Your task to perform on an android device: open sync settings in chrome Image 0: 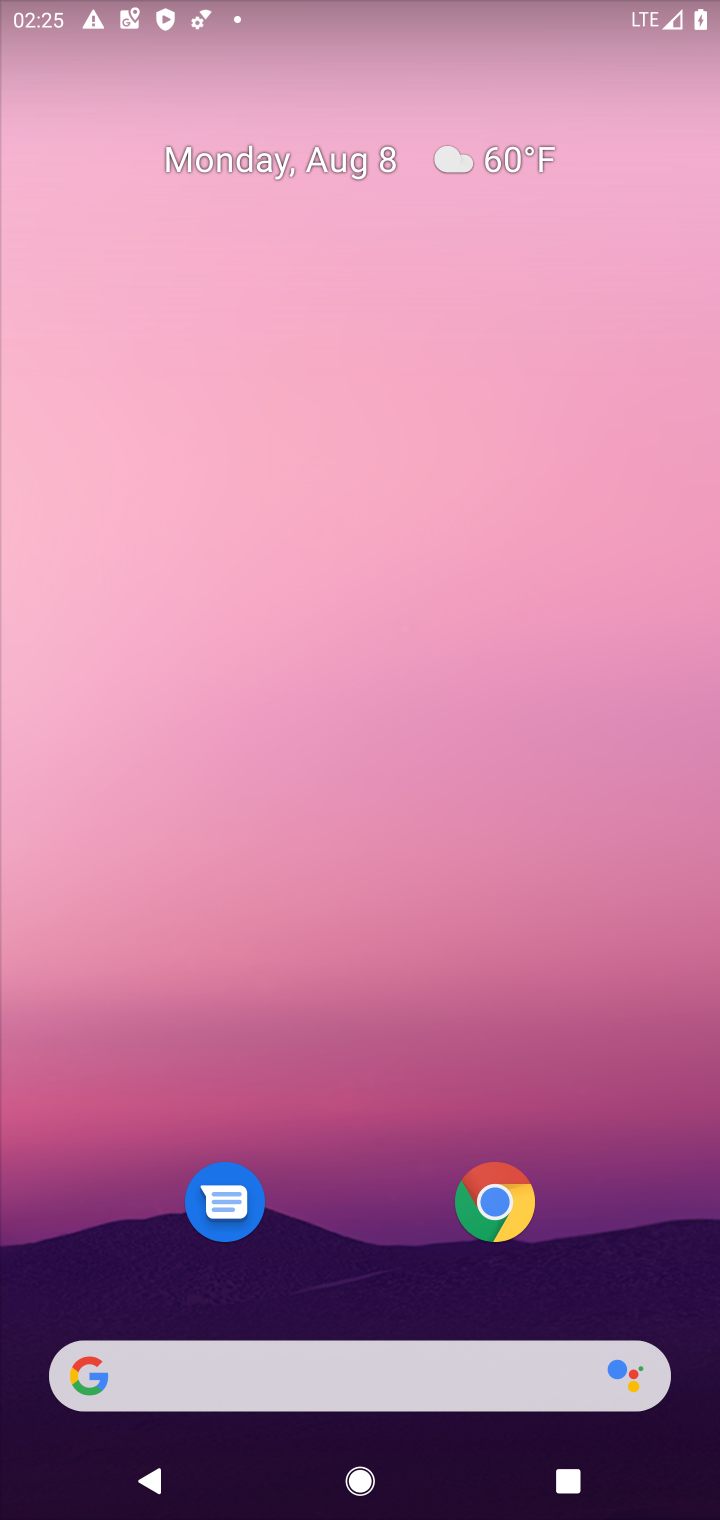
Step 0: click (504, 1211)
Your task to perform on an android device: open sync settings in chrome Image 1: 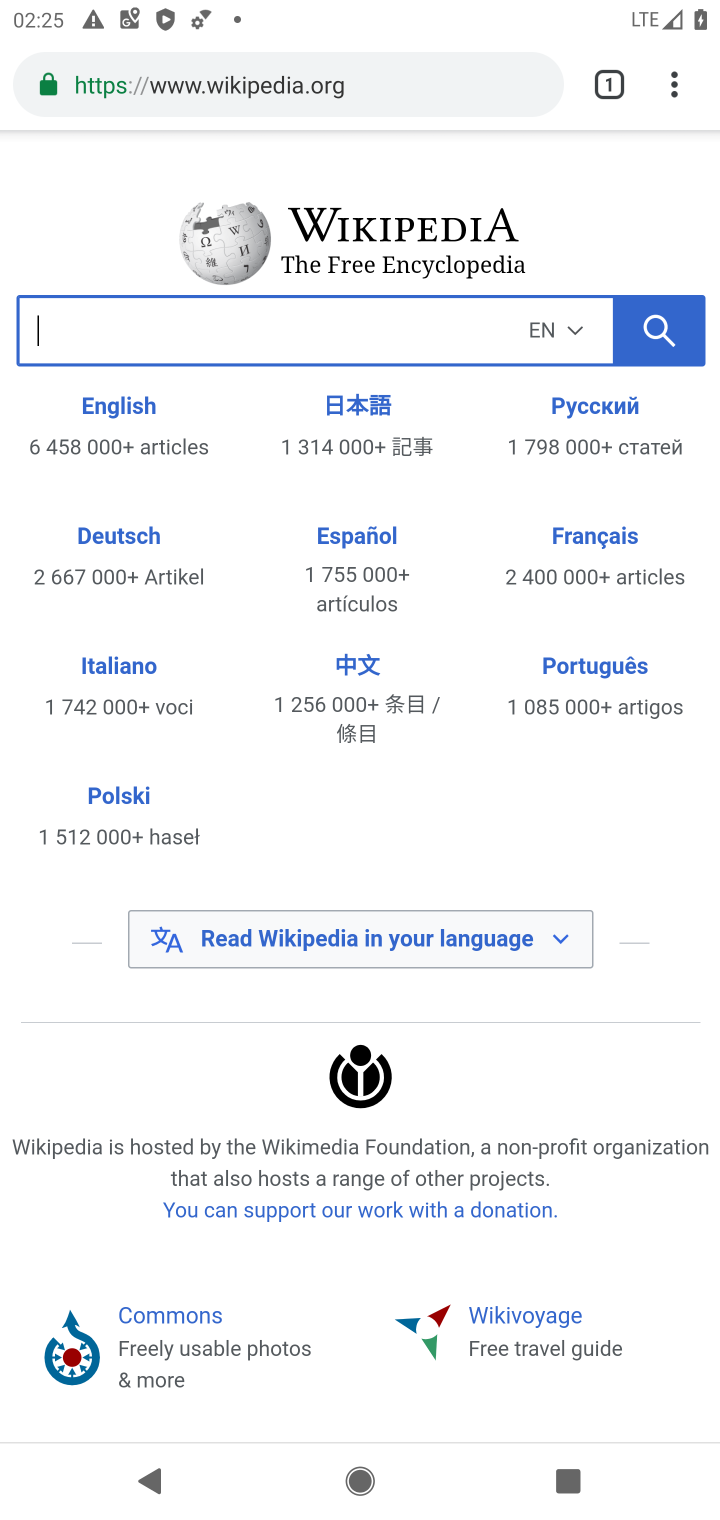
Step 1: click (673, 97)
Your task to perform on an android device: open sync settings in chrome Image 2: 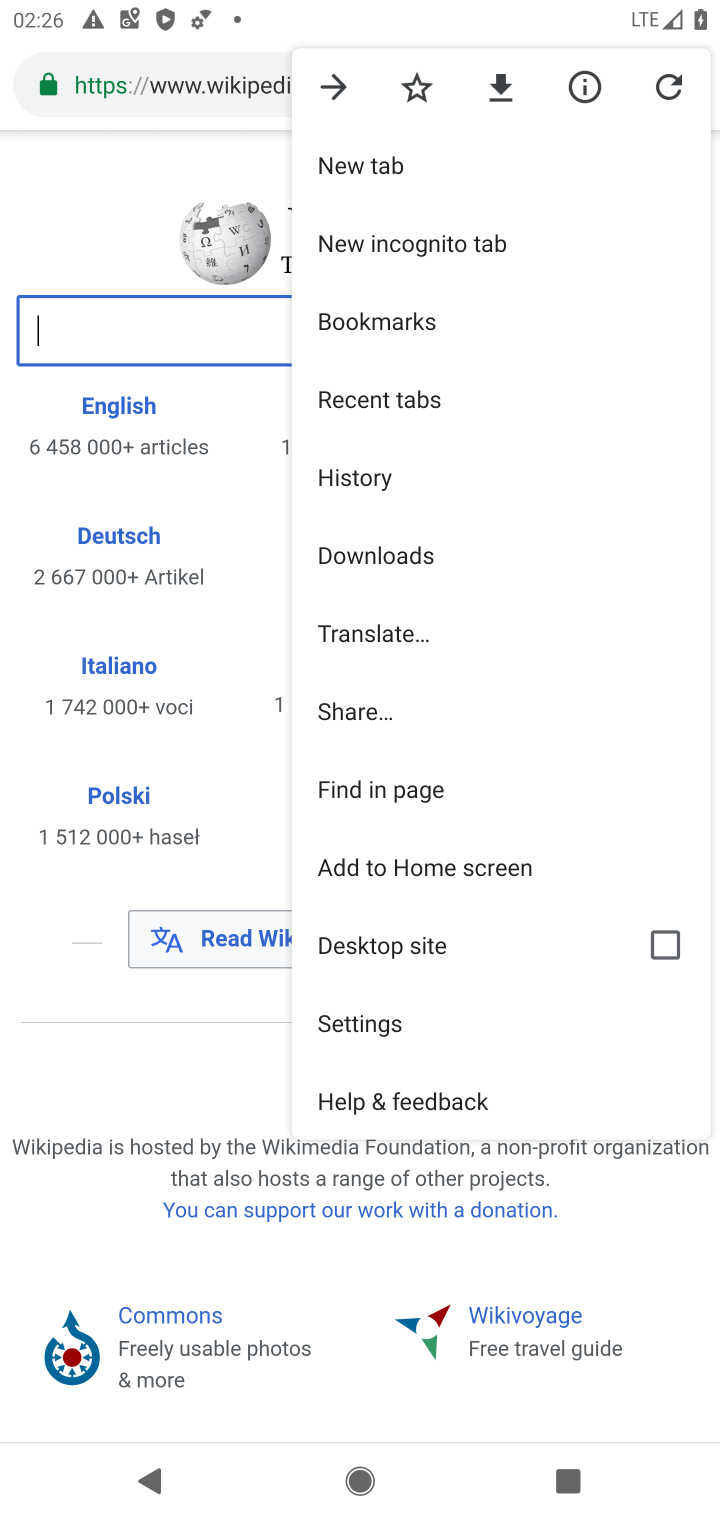
Step 2: click (350, 1019)
Your task to perform on an android device: open sync settings in chrome Image 3: 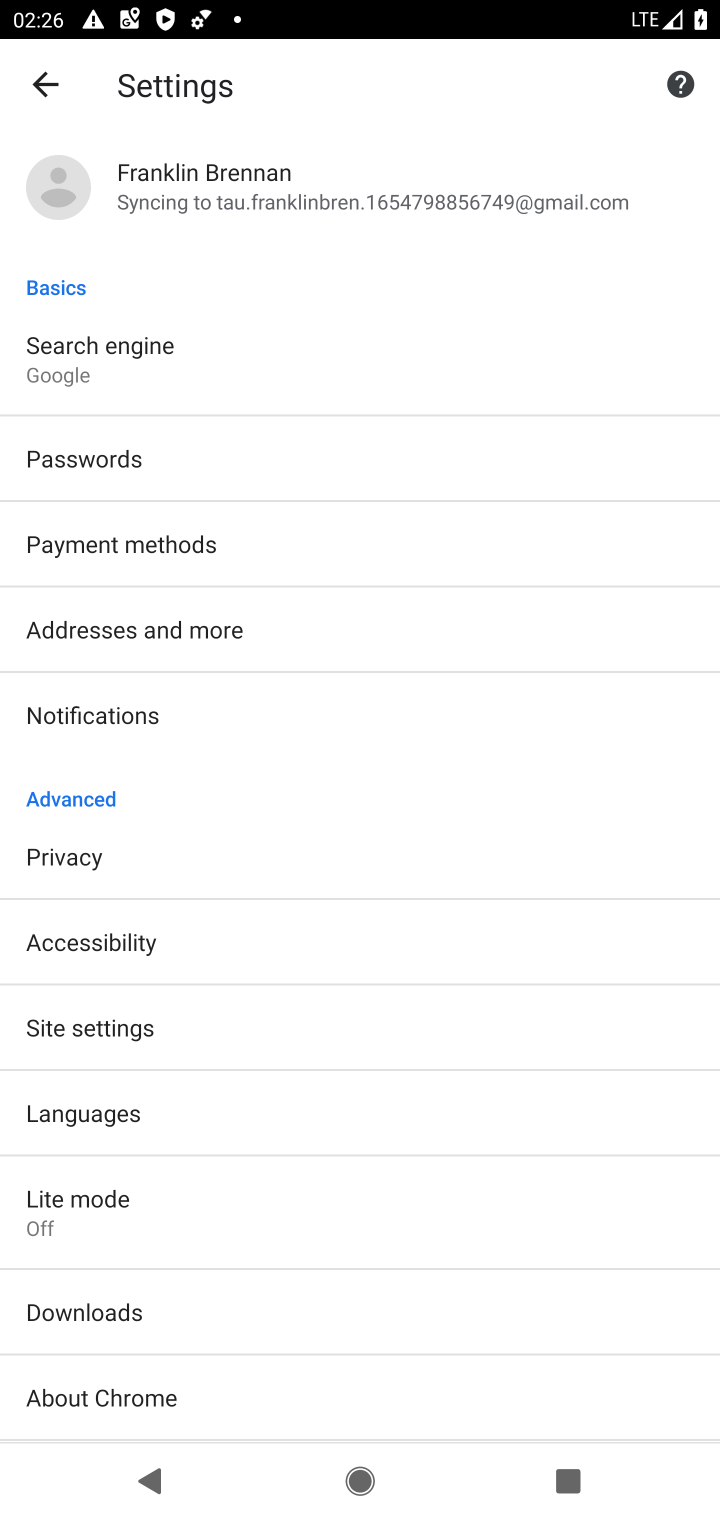
Step 3: click (325, 210)
Your task to perform on an android device: open sync settings in chrome Image 4: 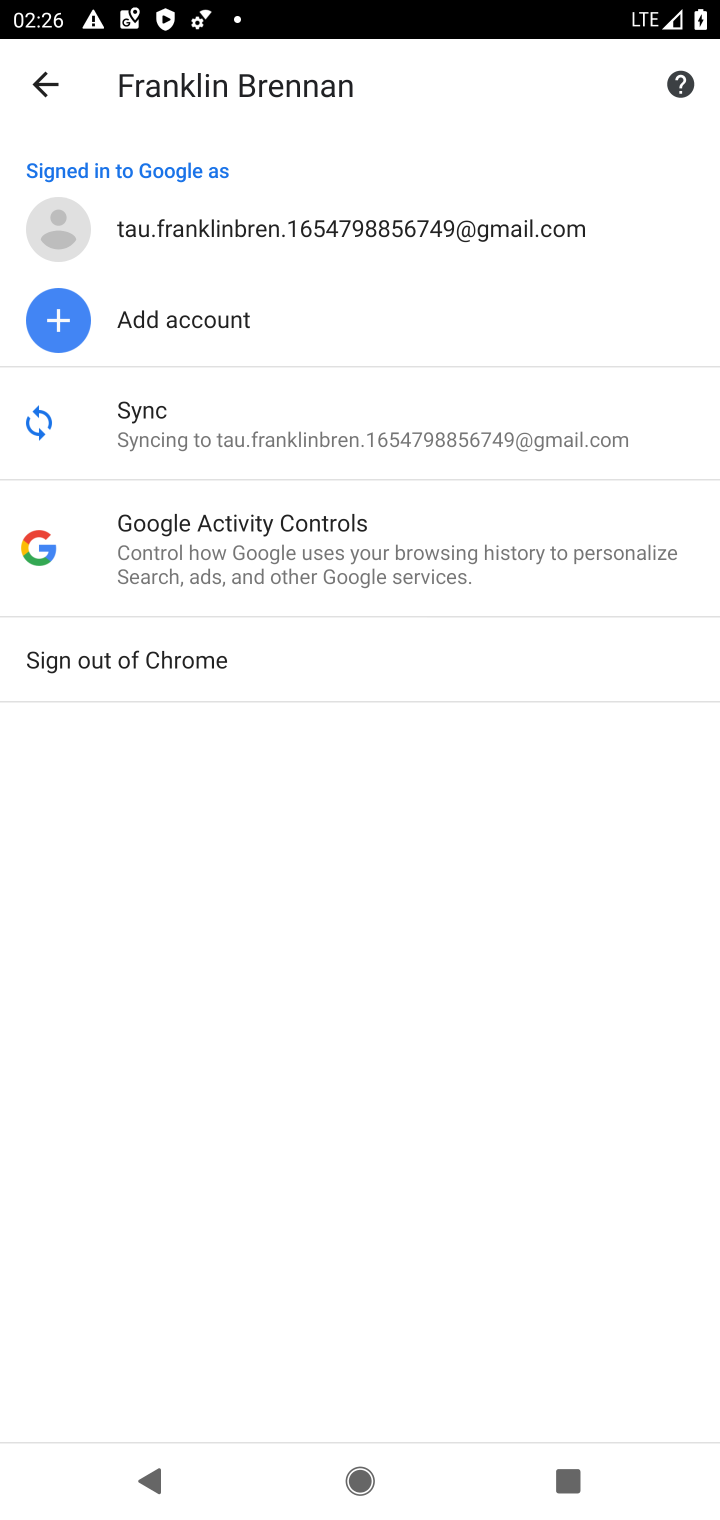
Step 4: click (180, 447)
Your task to perform on an android device: open sync settings in chrome Image 5: 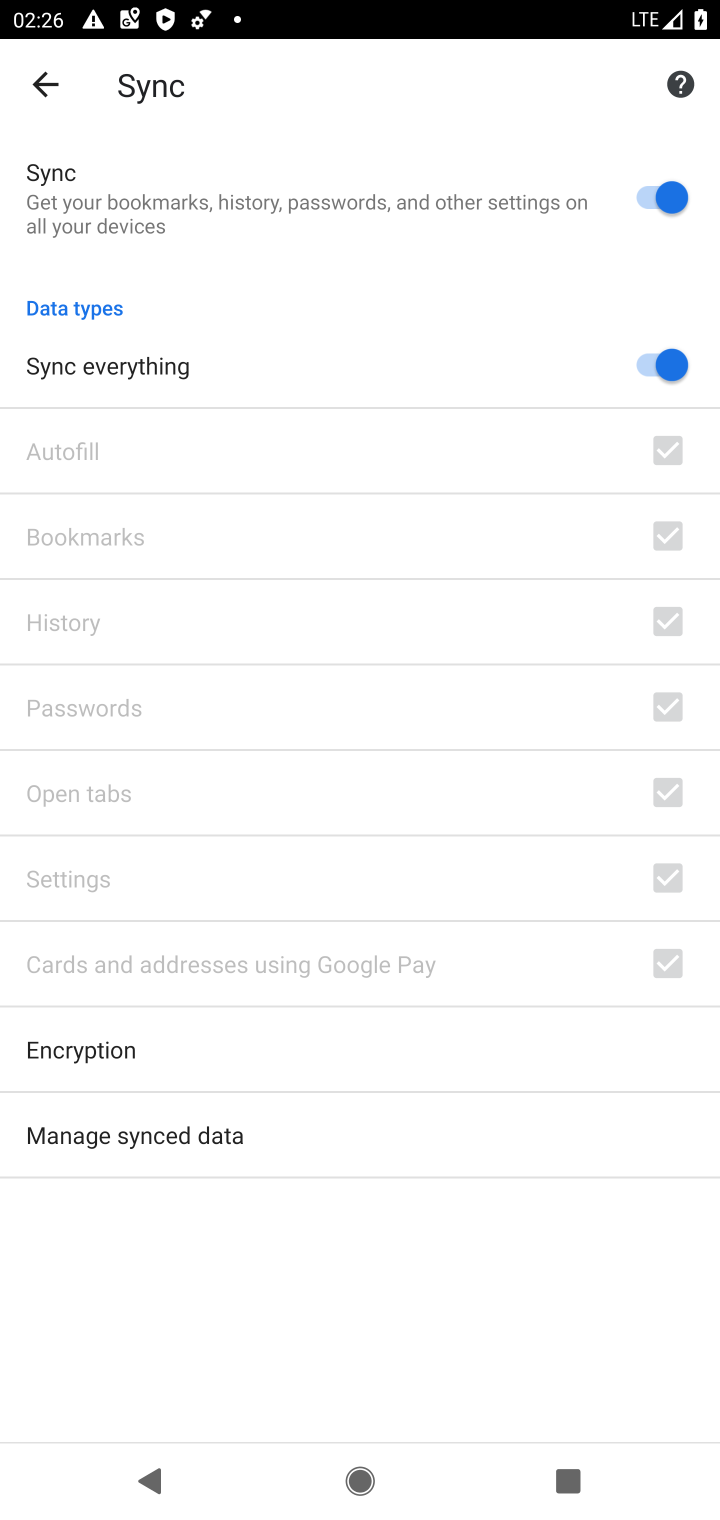
Step 5: task complete